Your task to perform on an android device: snooze an email in the gmail app Image 0: 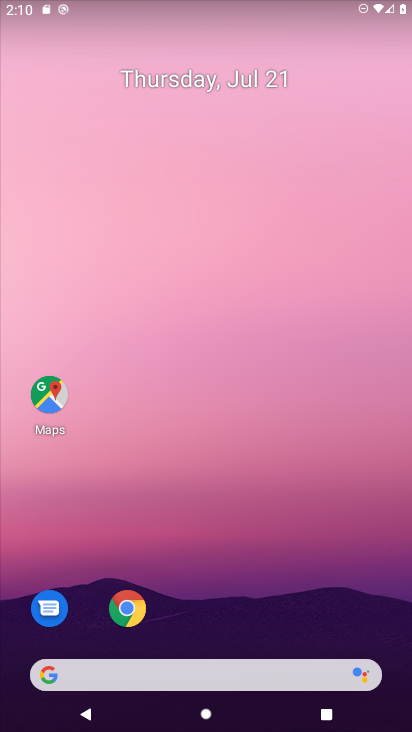
Step 0: drag from (201, 612) to (216, 137)
Your task to perform on an android device: snooze an email in the gmail app Image 1: 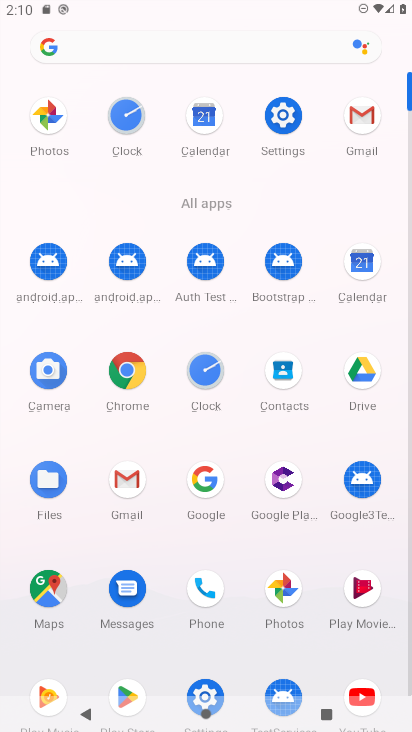
Step 1: click (353, 129)
Your task to perform on an android device: snooze an email in the gmail app Image 2: 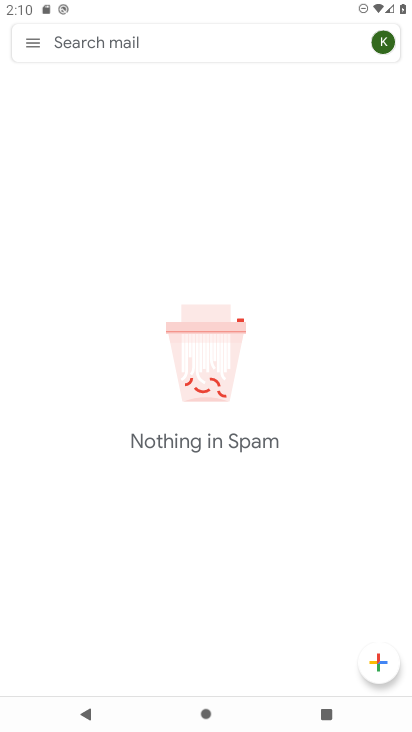
Step 2: click (28, 33)
Your task to perform on an android device: snooze an email in the gmail app Image 3: 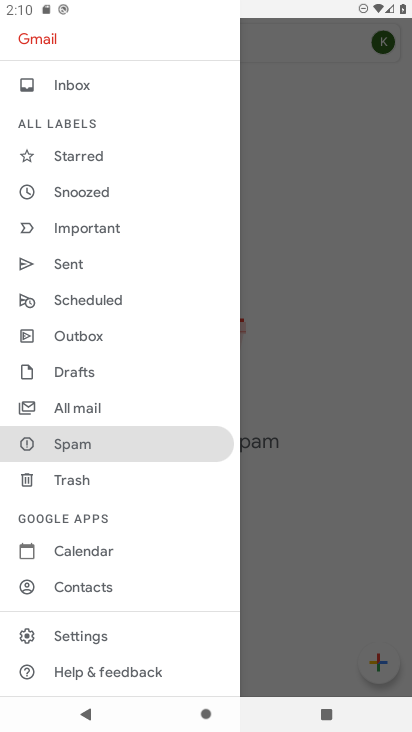
Step 3: click (86, 411)
Your task to perform on an android device: snooze an email in the gmail app Image 4: 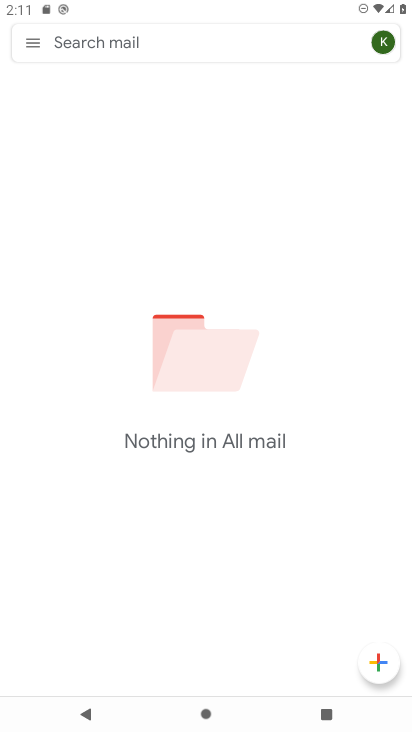
Step 4: task complete